Your task to perform on an android device: Go to accessibility settings Image 0: 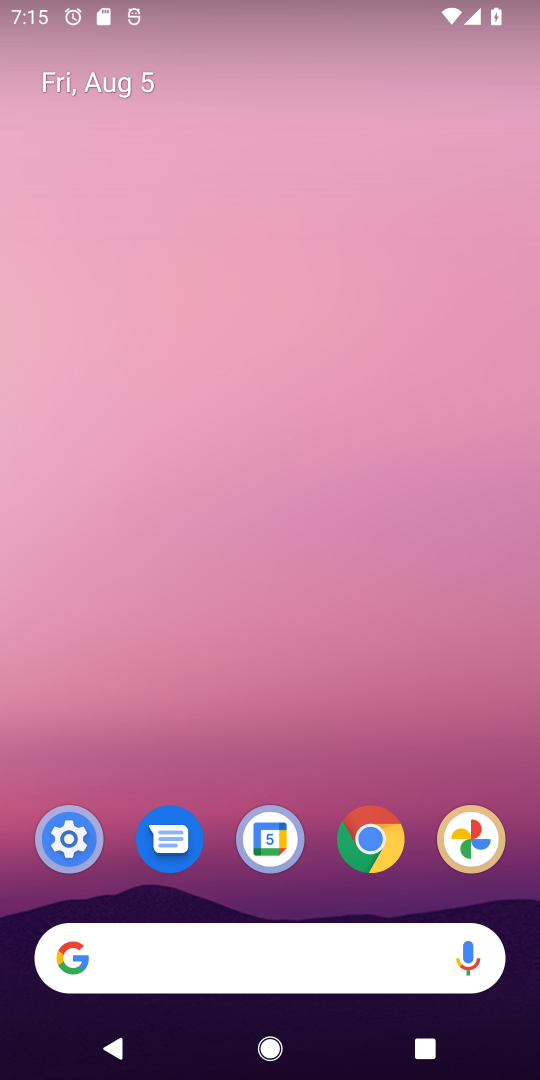
Step 0: click (66, 847)
Your task to perform on an android device: Go to accessibility settings Image 1: 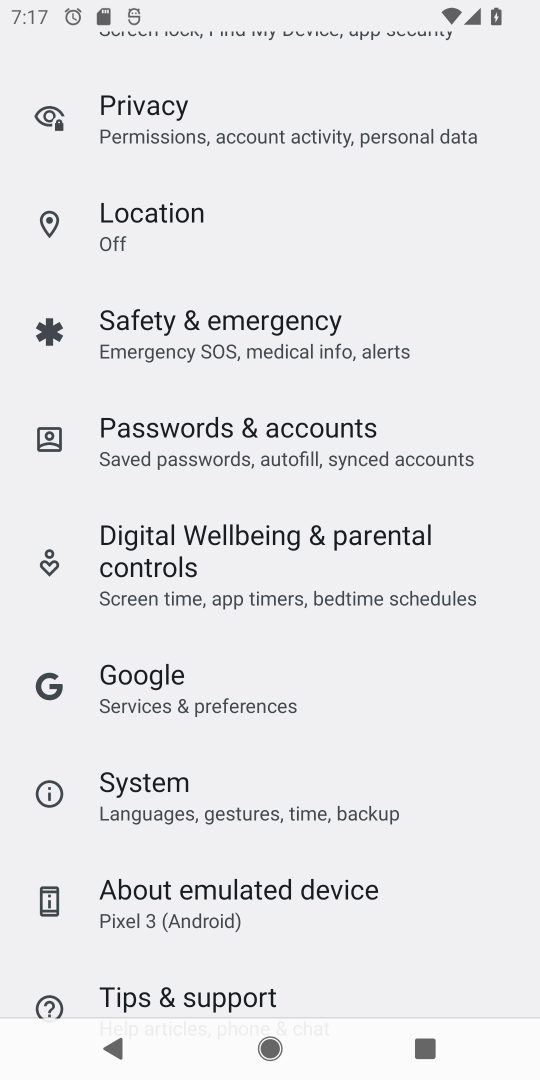
Step 1: drag from (218, 902) to (278, 345)
Your task to perform on an android device: Go to accessibility settings Image 2: 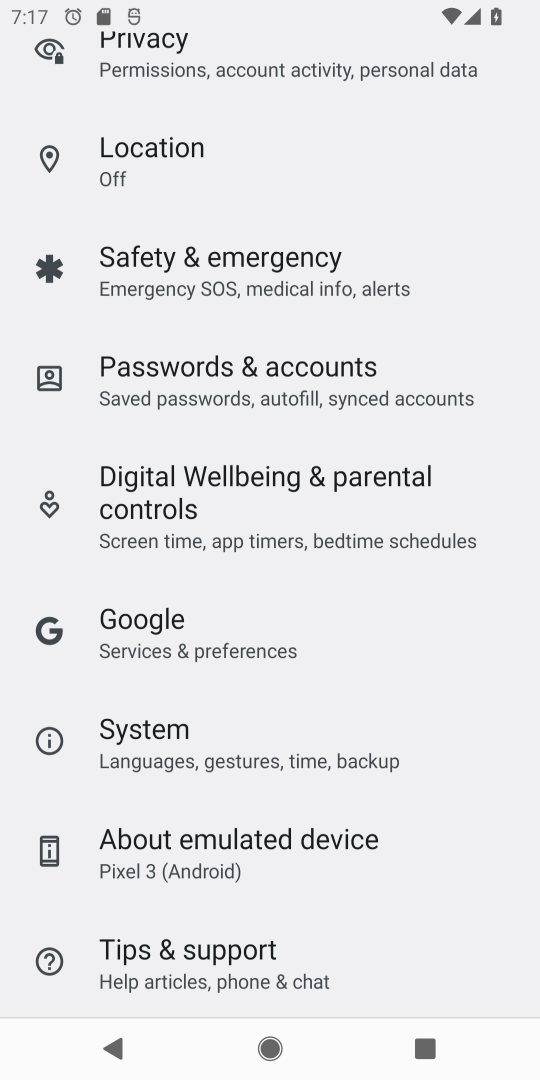
Step 2: drag from (278, 484) to (277, 809)
Your task to perform on an android device: Go to accessibility settings Image 3: 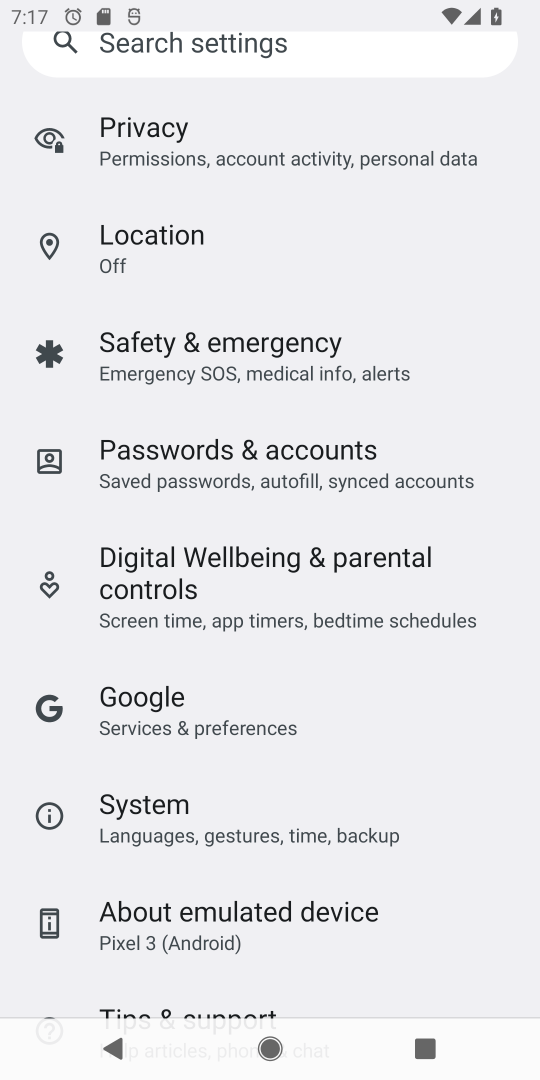
Step 3: drag from (246, 514) to (267, 853)
Your task to perform on an android device: Go to accessibility settings Image 4: 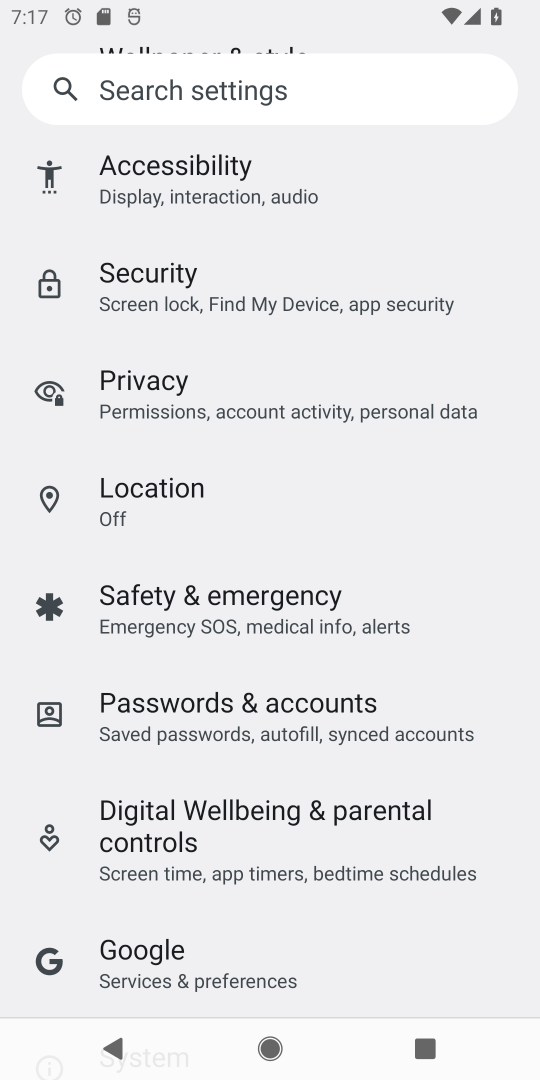
Step 4: click (177, 161)
Your task to perform on an android device: Go to accessibility settings Image 5: 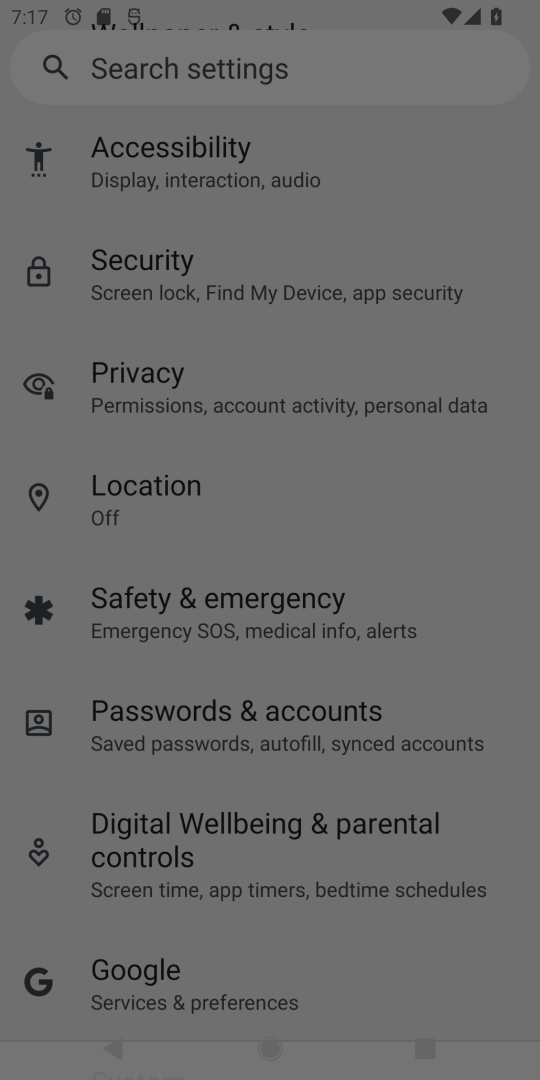
Step 5: click (208, 201)
Your task to perform on an android device: Go to accessibility settings Image 6: 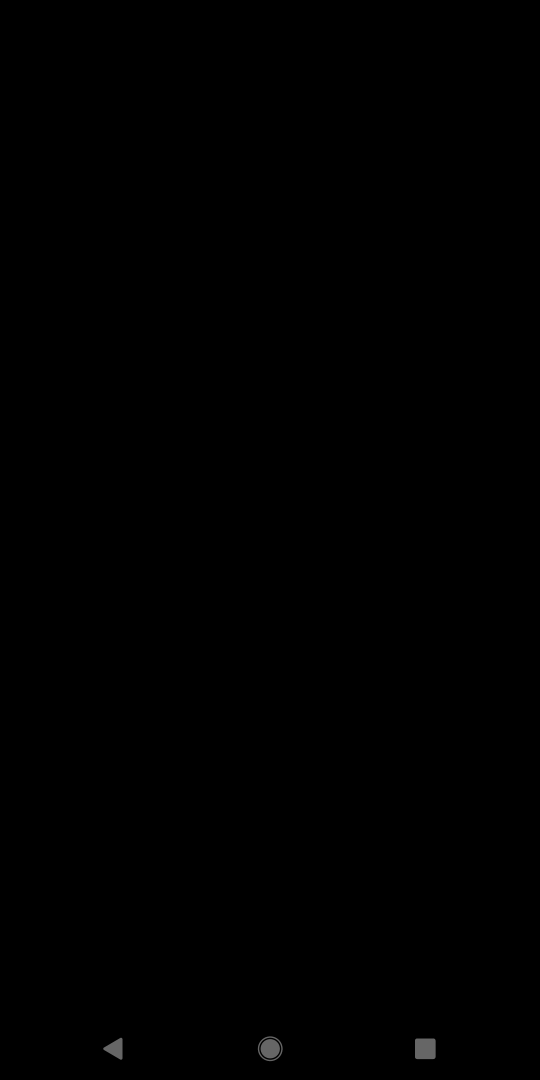
Step 6: task complete